Your task to perform on an android device: open a new tab in the chrome app Image 0: 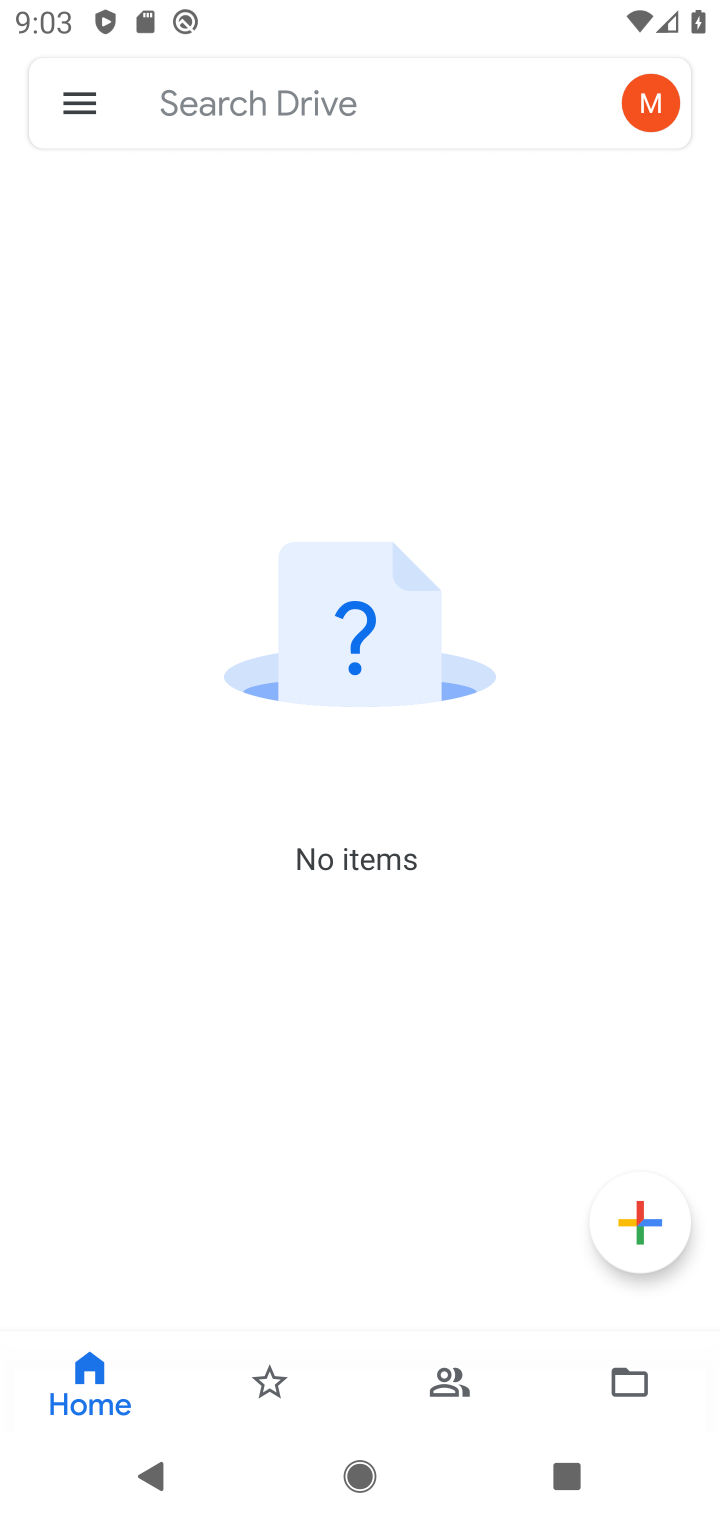
Step 0: press back button
Your task to perform on an android device: open a new tab in the chrome app Image 1: 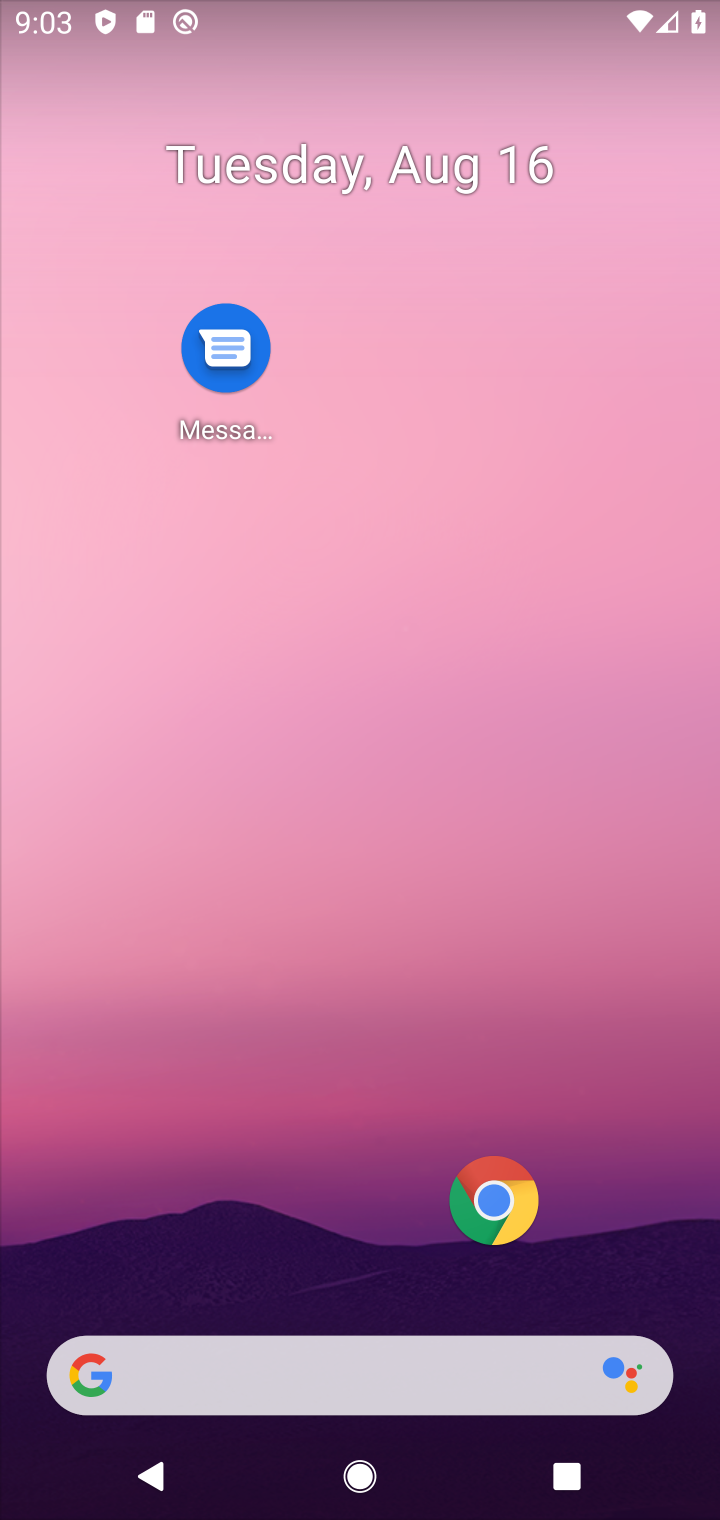
Step 1: click (493, 1225)
Your task to perform on an android device: open a new tab in the chrome app Image 2: 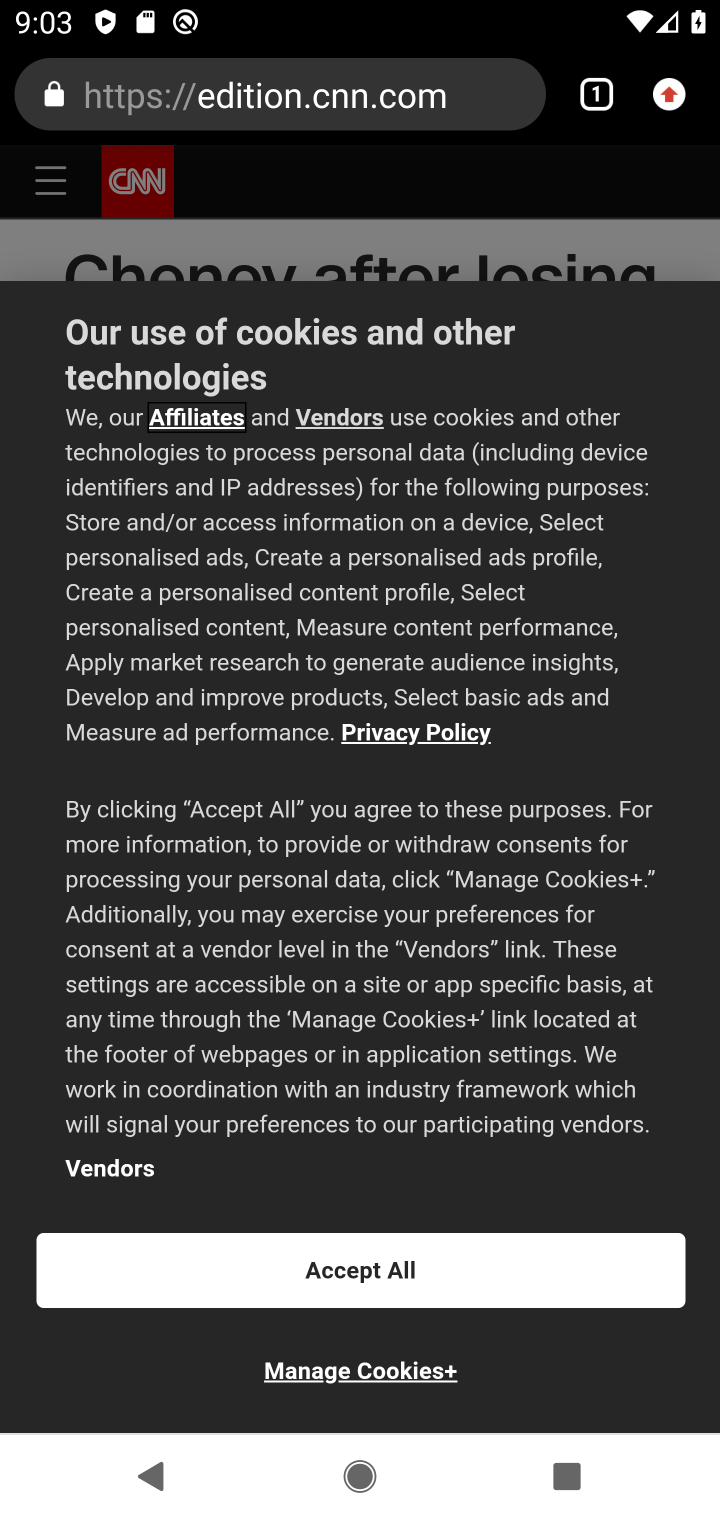
Step 2: click (612, 91)
Your task to perform on an android device: open a new tab in the chrome app Image 3: 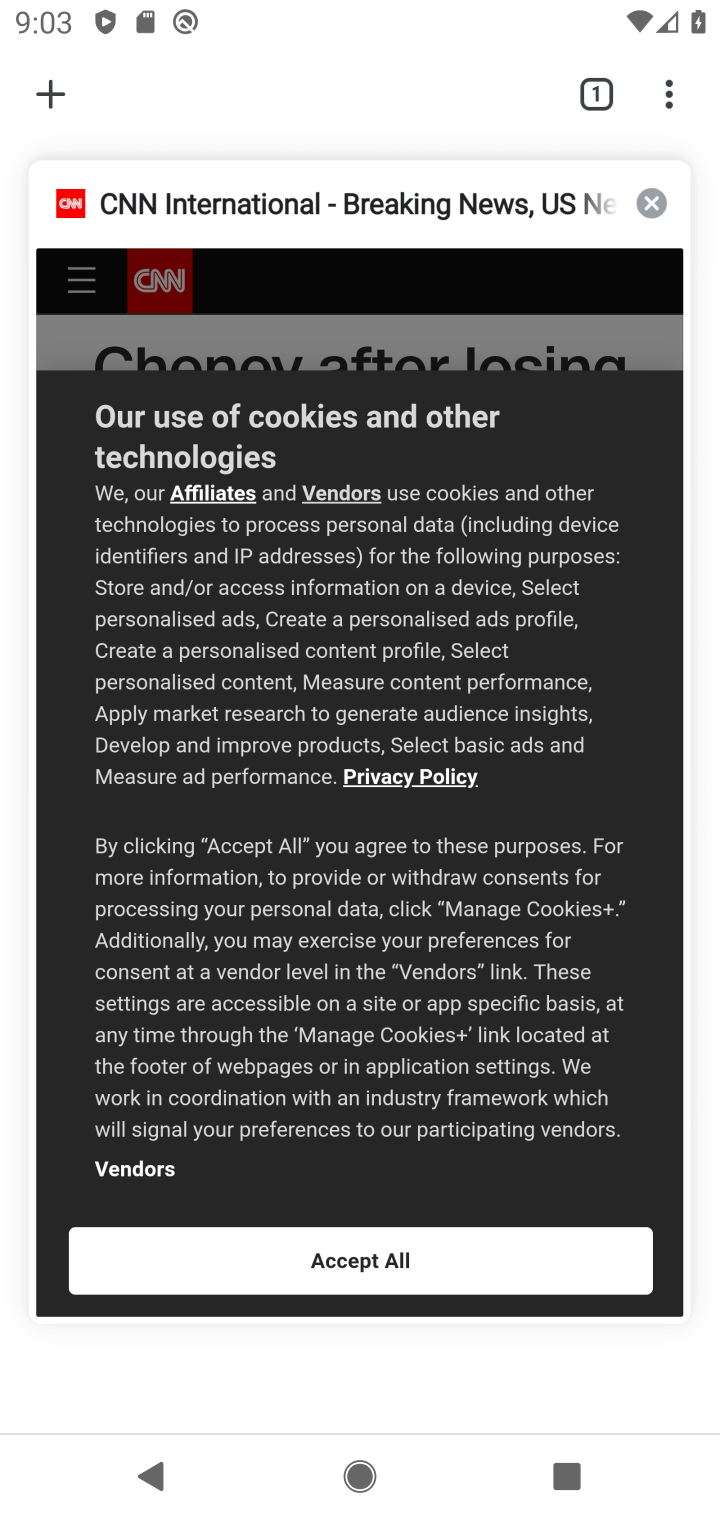
Step 3: click (45, 91)
Your task to perform on an android device: open a new tab in the chrome app Image 4: 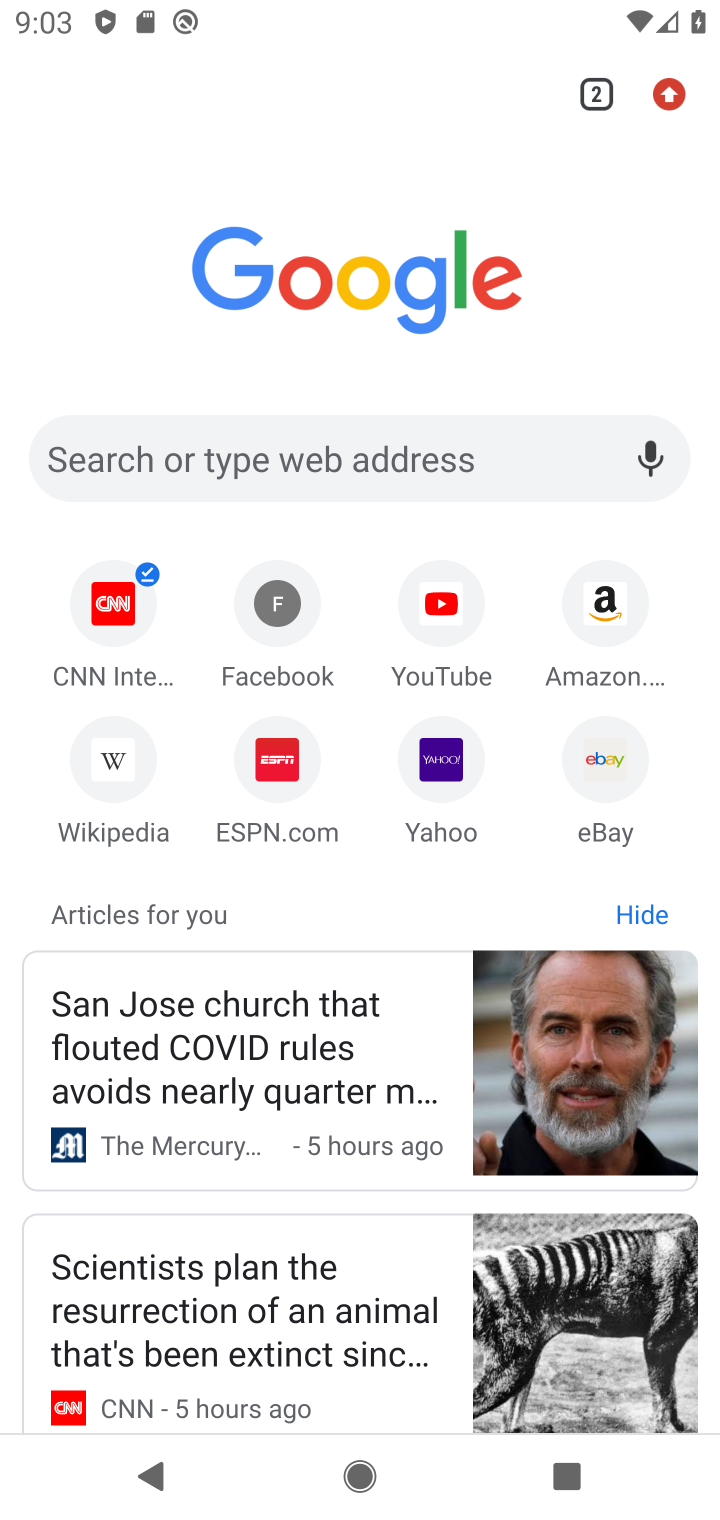
Step 4: task complete